Your task to perform on an android device: Search for acer predator on amazon, select the first entry, and add it to the cart. Image 0: 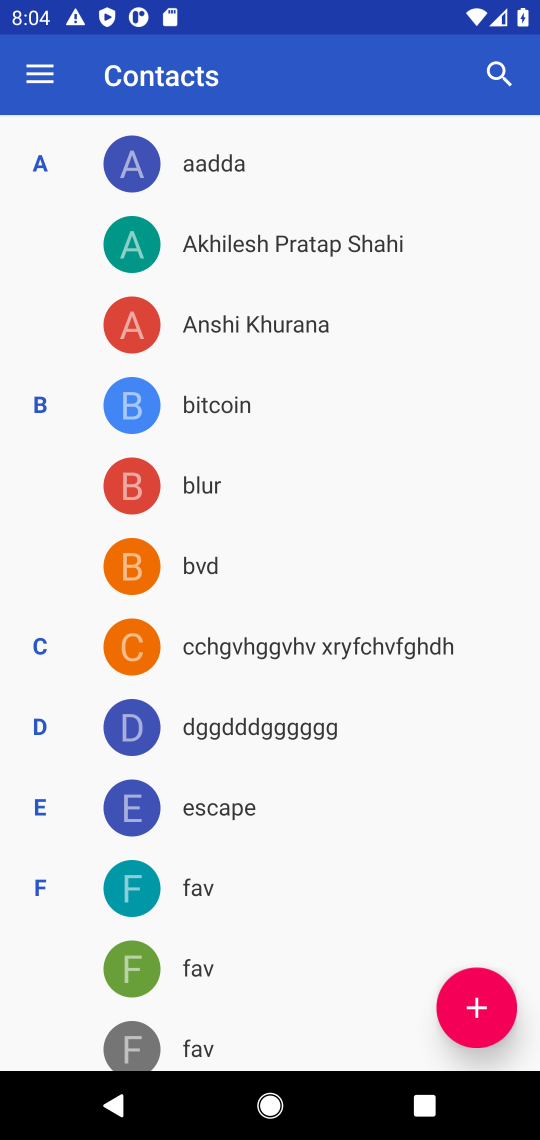
Step 0: press home button
Your task to perform on an android device: Search for acer predator on amazon, select the first entry, and add it to the cart. Image 1: 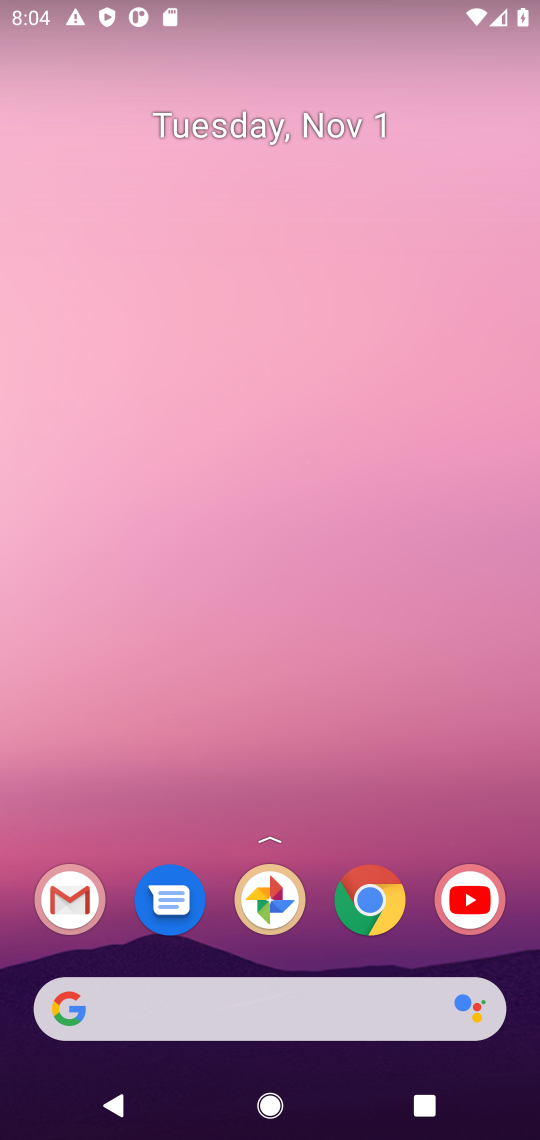
Step 1: drag from (327, 955) to (461, 202)
Your task to perform on an android device: Search for acer predator on amazon, select the first entry, and add it to the cart. Image 2: 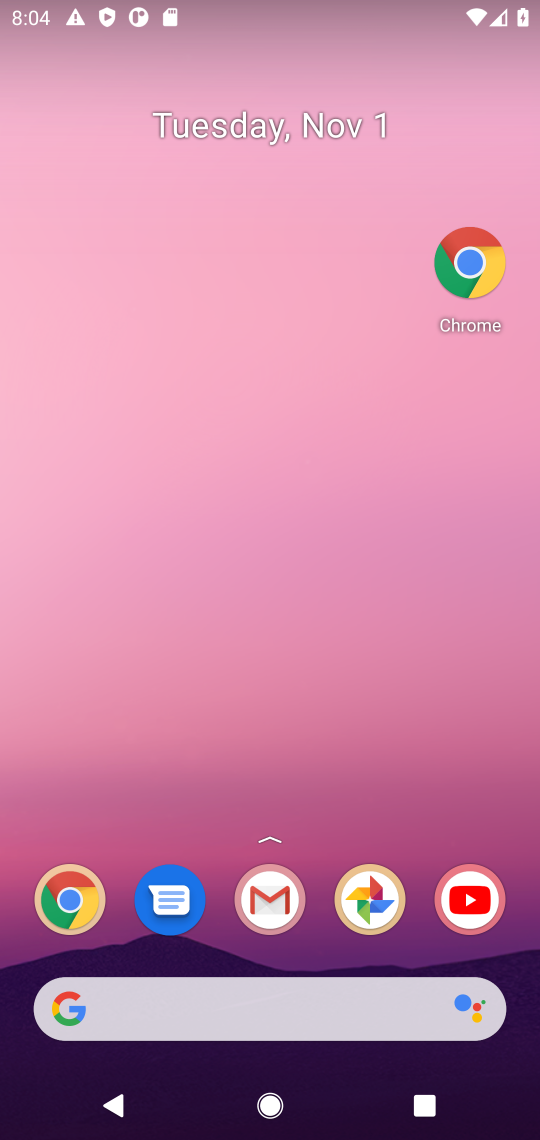
Step 2: drag from (319, 956) to (353, 236)
Your task to perform on an android device: Search for acer predator on amazon, select the first entry, and add it to the cart. Image 3: 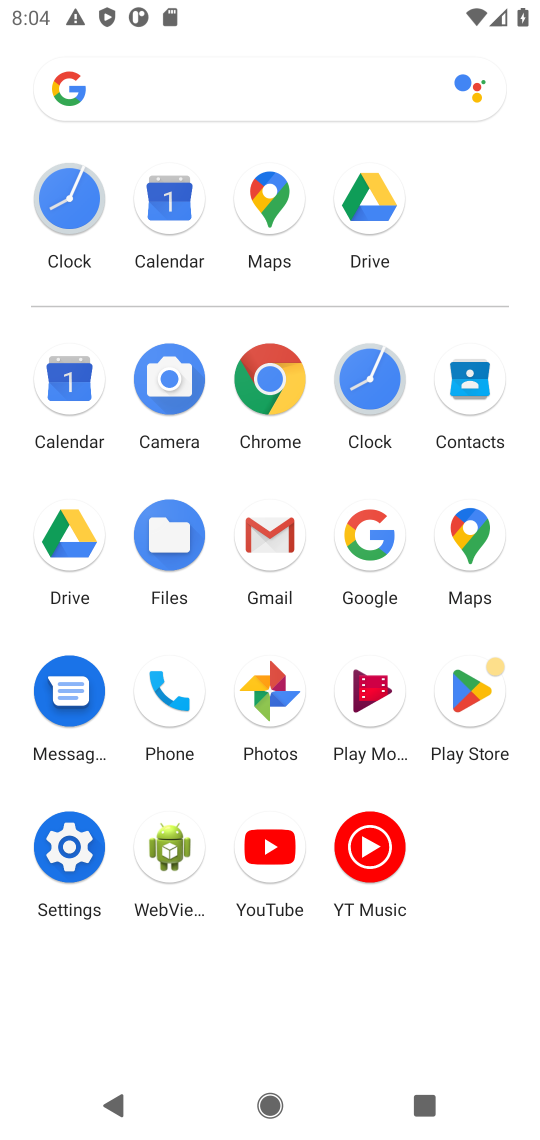
Step 3: click (266, 379)
Your task to perform on an android device: Search for acer predator on amazon, select the first entry, and add it to the cart. Image 4: 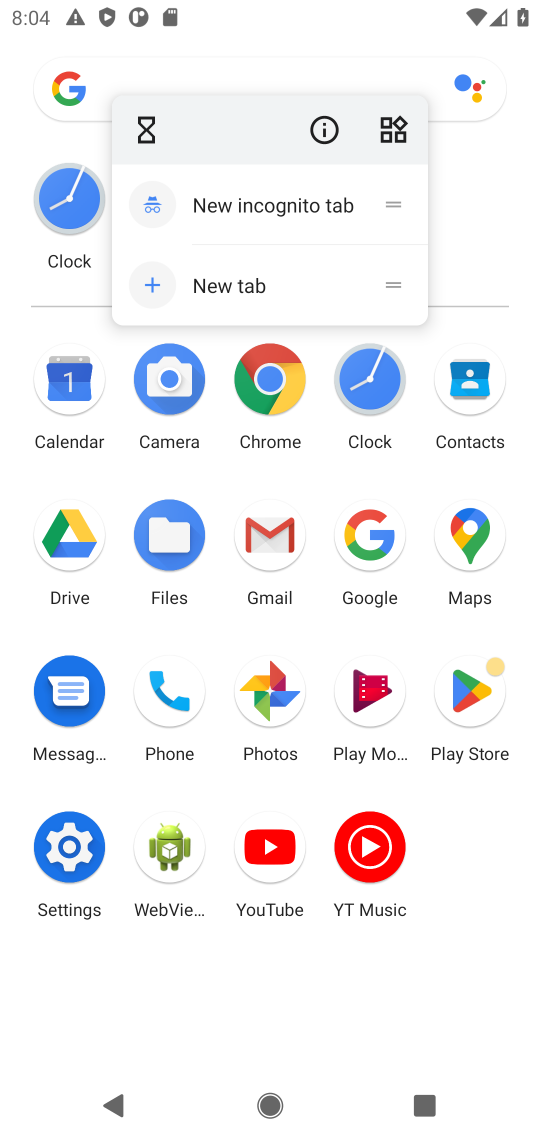
Step 4: click (266, 379)
Your task to perform on an android device: Search for acer predator on amazon, select the first entry, and add it to the cart. Image 5: 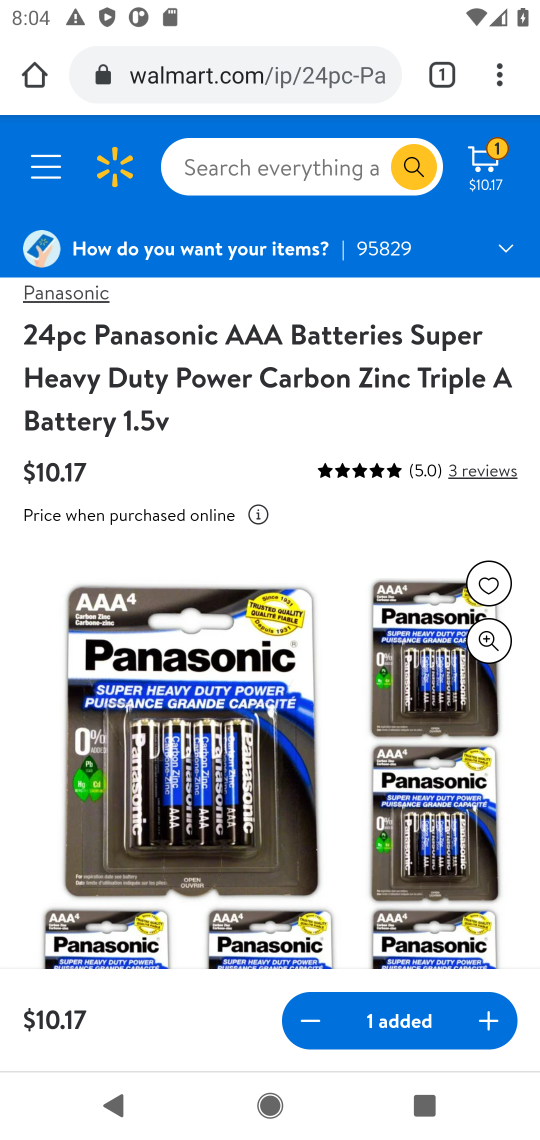
Step 5: click (283, 62)
Your task to perform on an android device: Search for acer predator on amazon, select the first entry, and add it to the cart. Image 6: 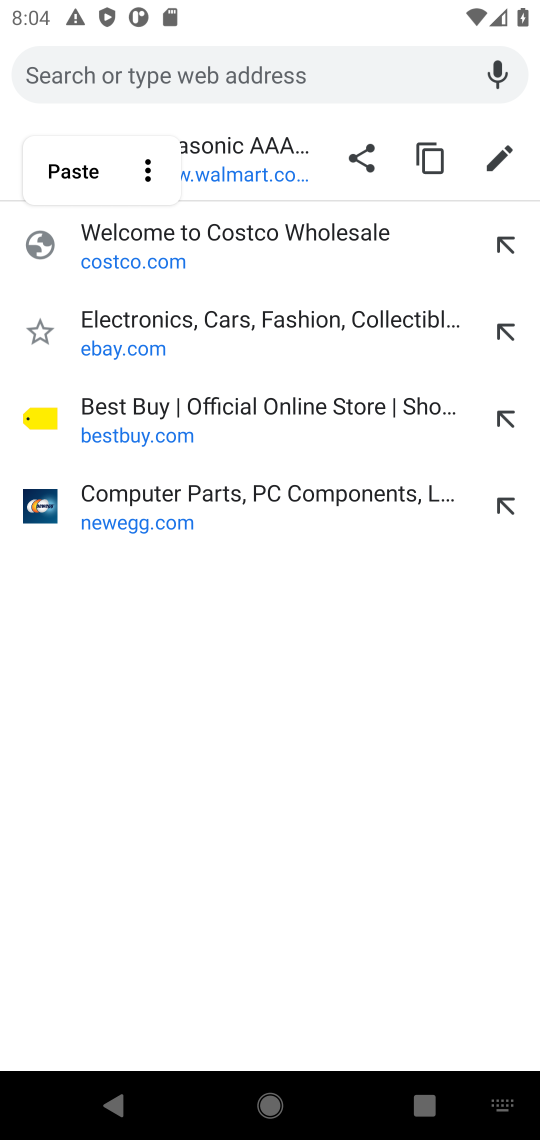
Step 6: type "amazon.com"
Your task to perform on an android device: Search for acer predator on amazon, select the first entry, and add it to the cart. Image 7: 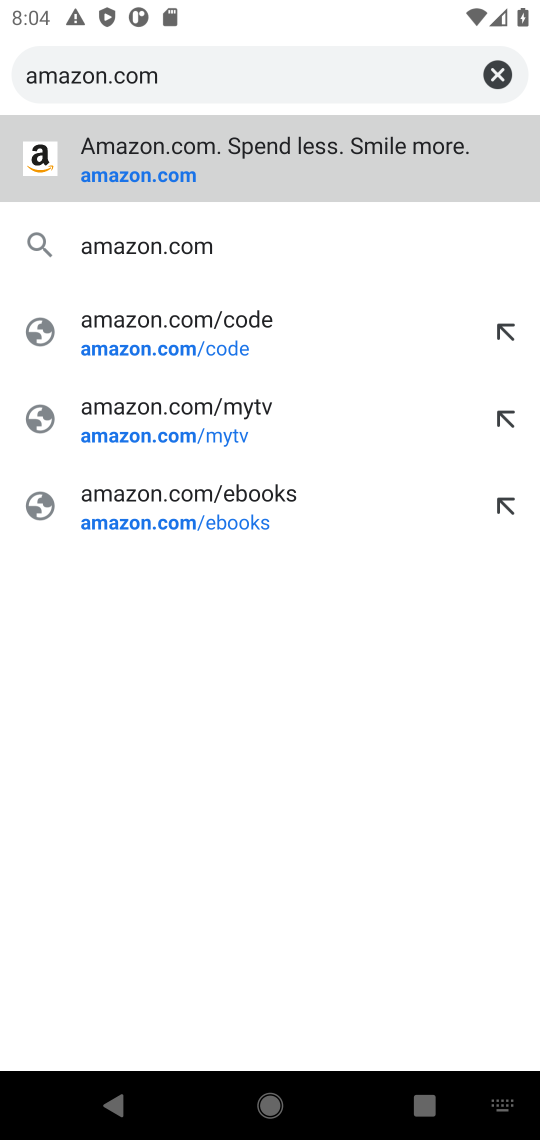
Step 7: press enter
Your task to perform on an android device: Search for acer predator on amazon, select the first entry, and add it to the cart. Image 8: 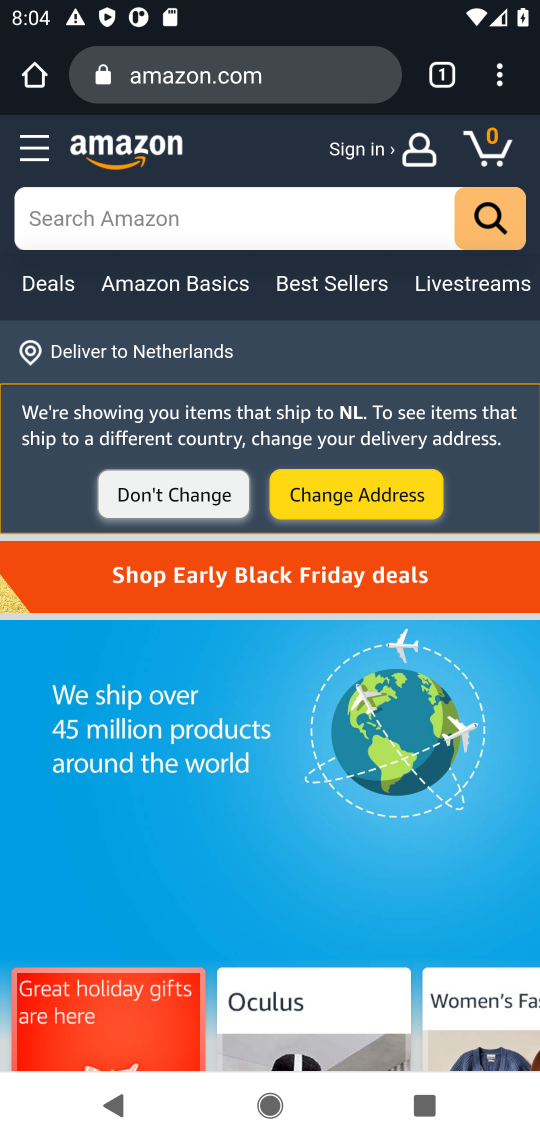
Step 8: click (207, 210)
Your task to perform on an android device: Search for acer predator on amazon, select the first entry, and add it to the cart. Image 9: 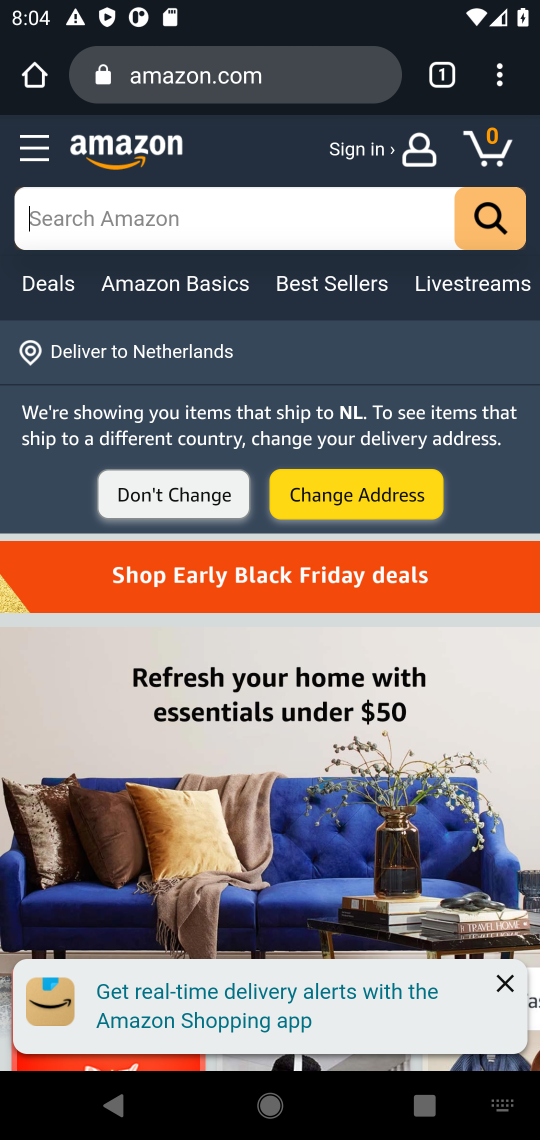
Step 9: type "acer predator"
Your task to perform on an android device: Search for acer predator on amazon, select the first entry, and add it to the cart. Image 10: 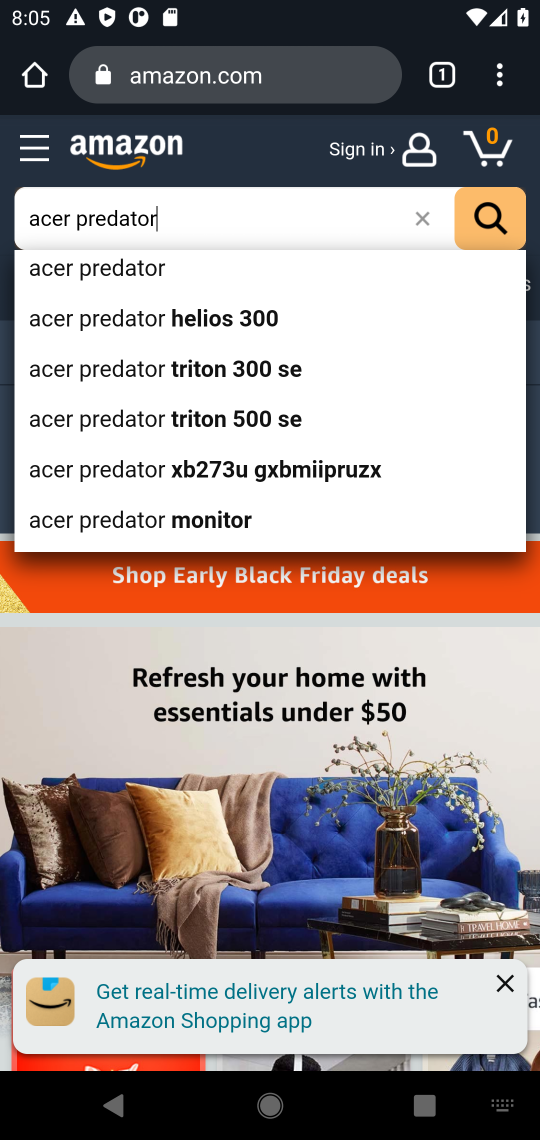
Step 10: press enter
Your task to perform on an android device: Search for acer predator on amazon, select the first entry, and add it to the cart. Image 11: 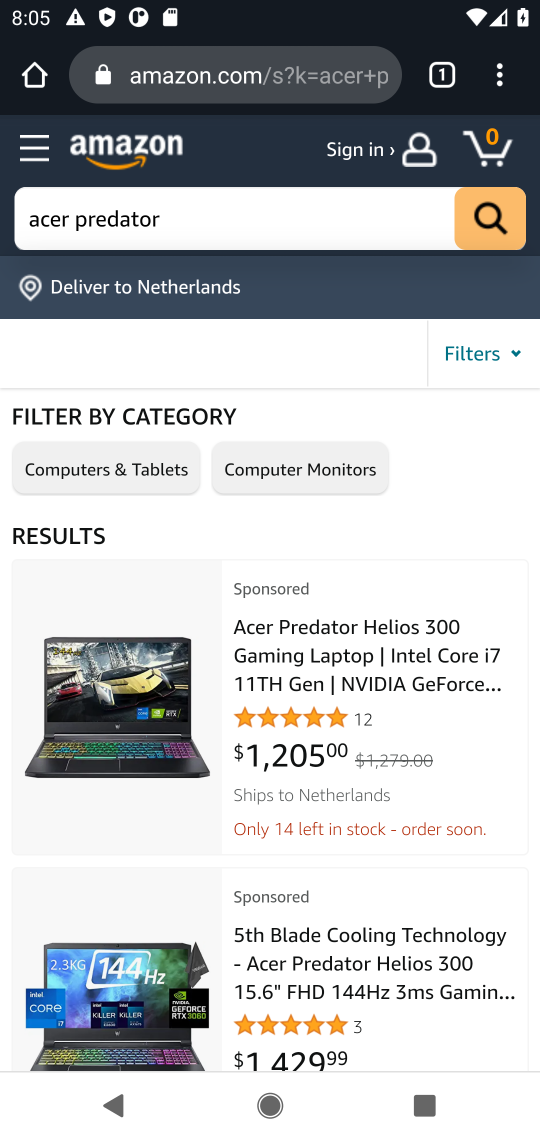
Step 11: drag from (321, 1048) to (271, 452)
Your task to perform on an android device: Search for acer predator on amazon, select the first entry, and add it to the cart. Image 12: 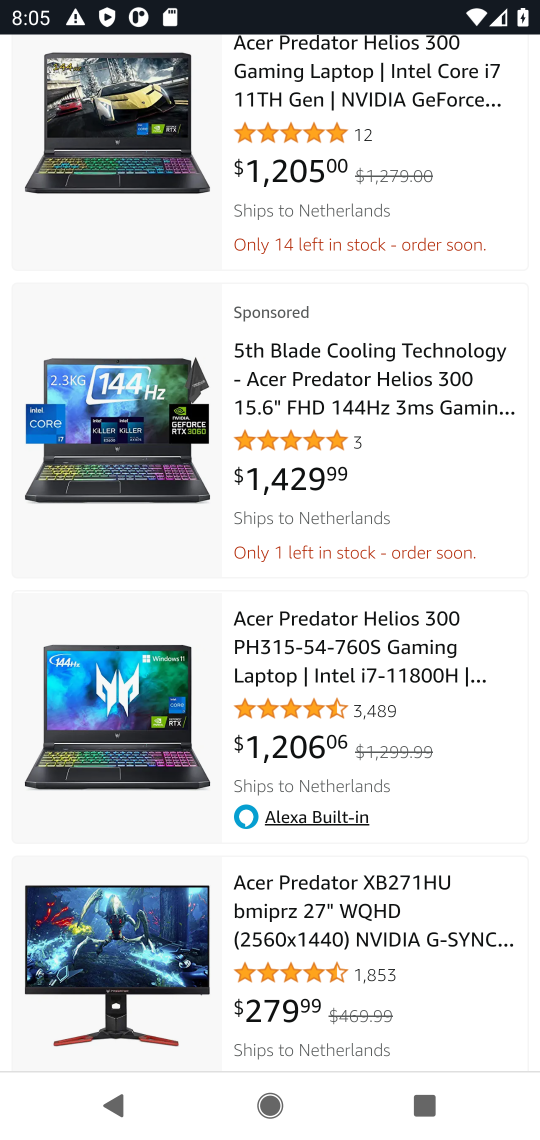
Step 12: click (261, 646)
Your task to perform on an android device: Search for acer predator on amazon, select the first entry, and add it to the cart. Image 13: 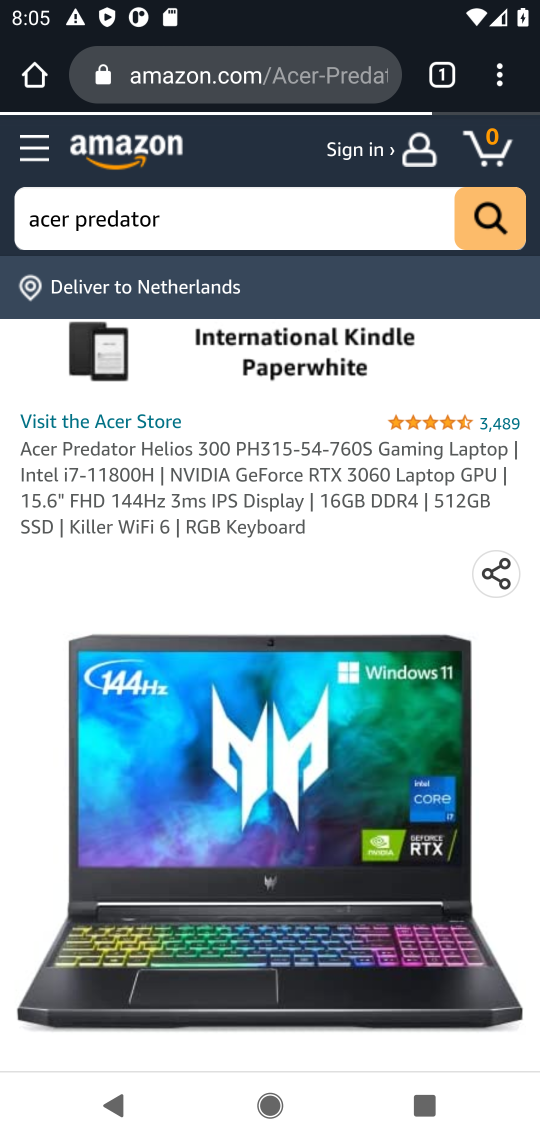
Step 13: drag from (273, 943) to (202, 313)
Your task to perform on an android device: Search for acer predator on amazon, select the first entry, and add it to the cart. Image 14: 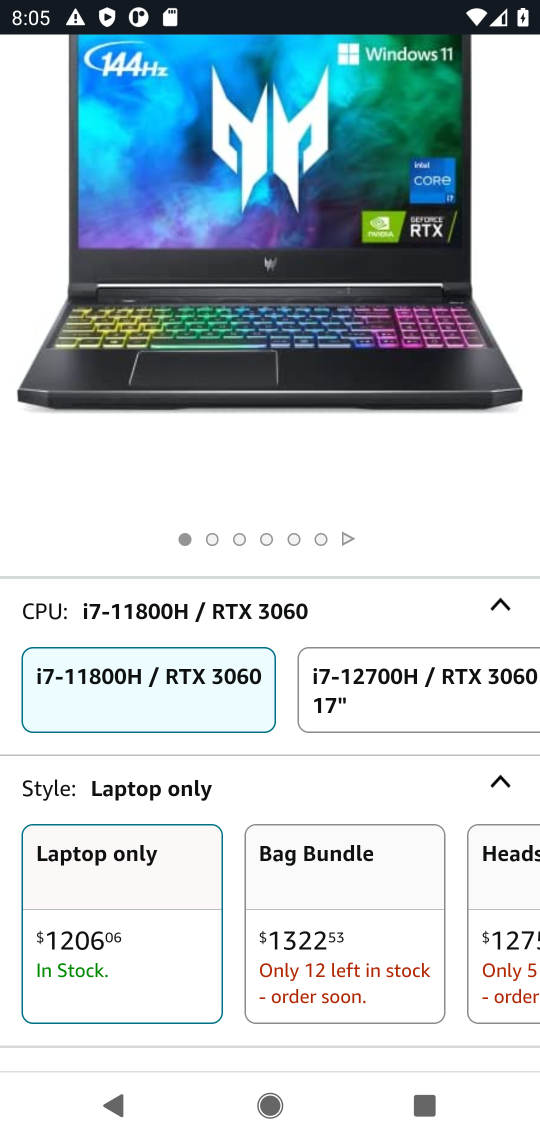
Step 14: drag from (149, 860) to (157, 281)
Your task to perform on an android device: Search for acer predator on amazon, select the first entry, and add it to the cart. Image 15: 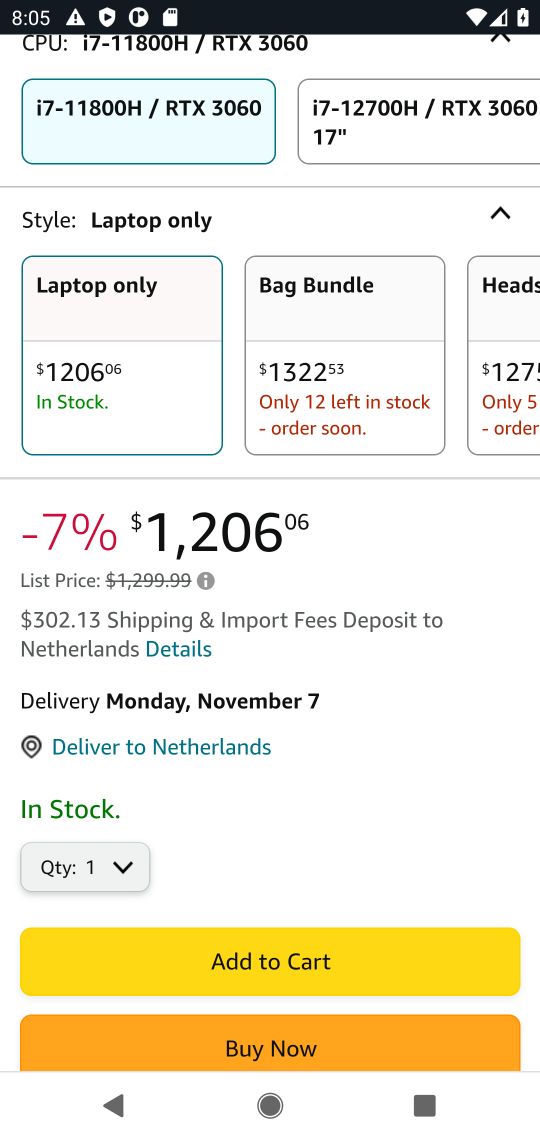
Step 15: click (309, 956)
Your task to perform on an android device: Search for acer predator on amazon, select the first entry, and add it to the cart. Image 16: 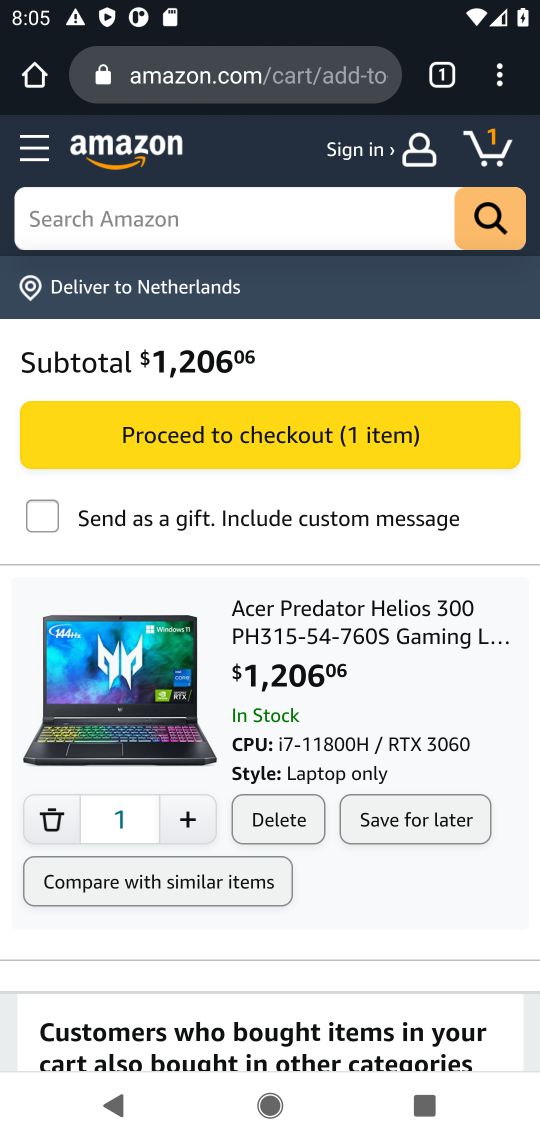
Step 16: task complete